Your task to perform on an android device: Open the gallery Image 0: 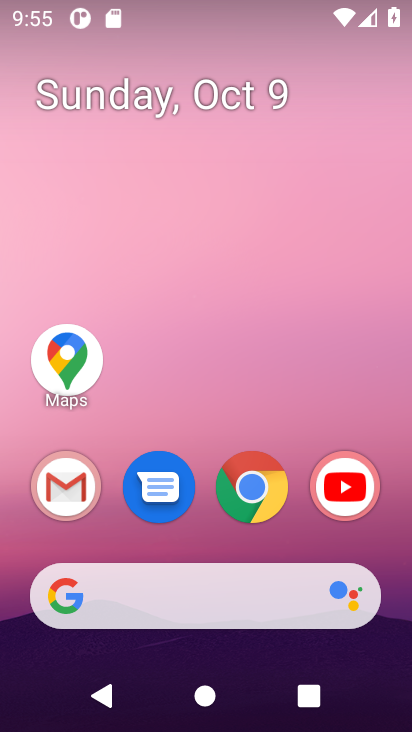
Step 0: drag from (237, 633) to (169, 188)
Your task to perform on an android device: Open the gallery Image 1: 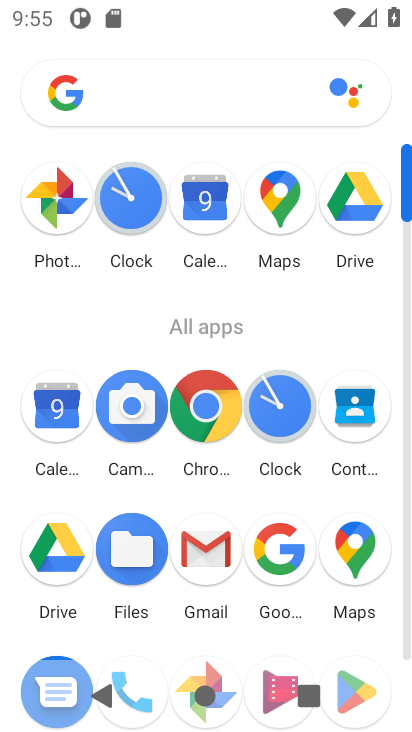
Step 1: task complete